Your task to perform on an android device: open device folders in google photos Image 0: 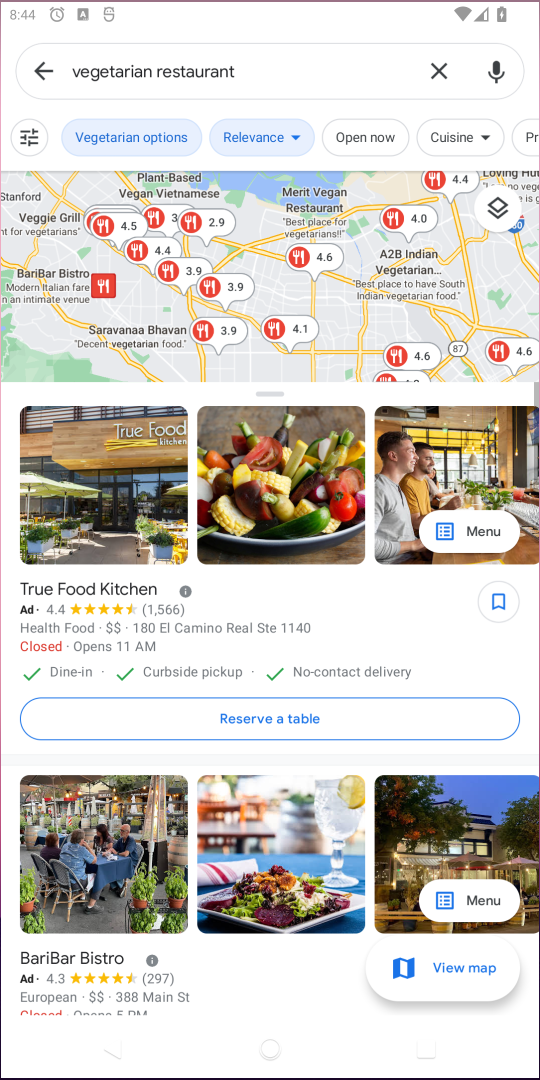
Step 0: press home button
Your task to perform on an android device: open device folders in google photos Image 1: 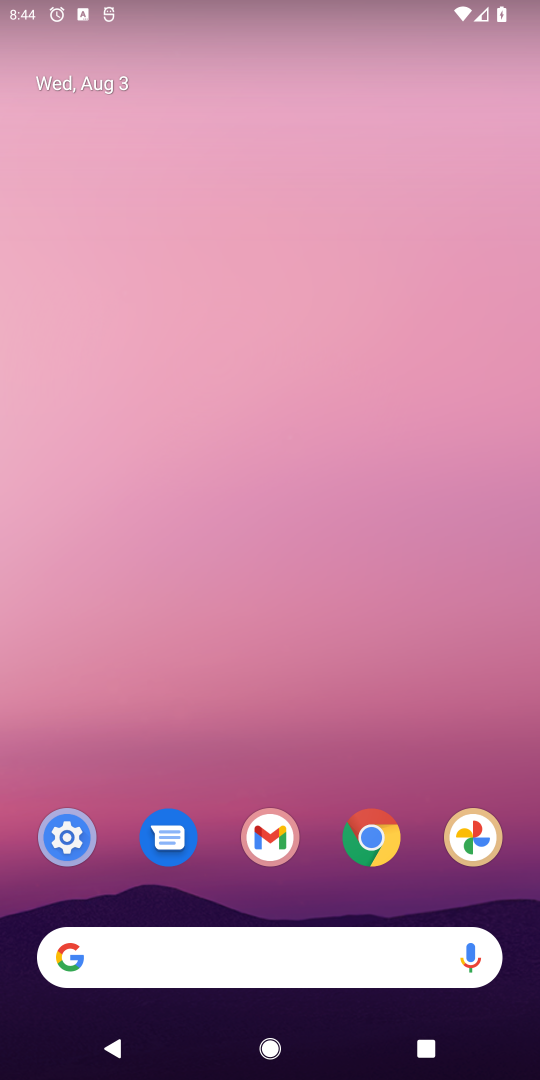
Step 1: click (467, 848)
Your task to perform on an android device: open device folders in google photos Image 2: 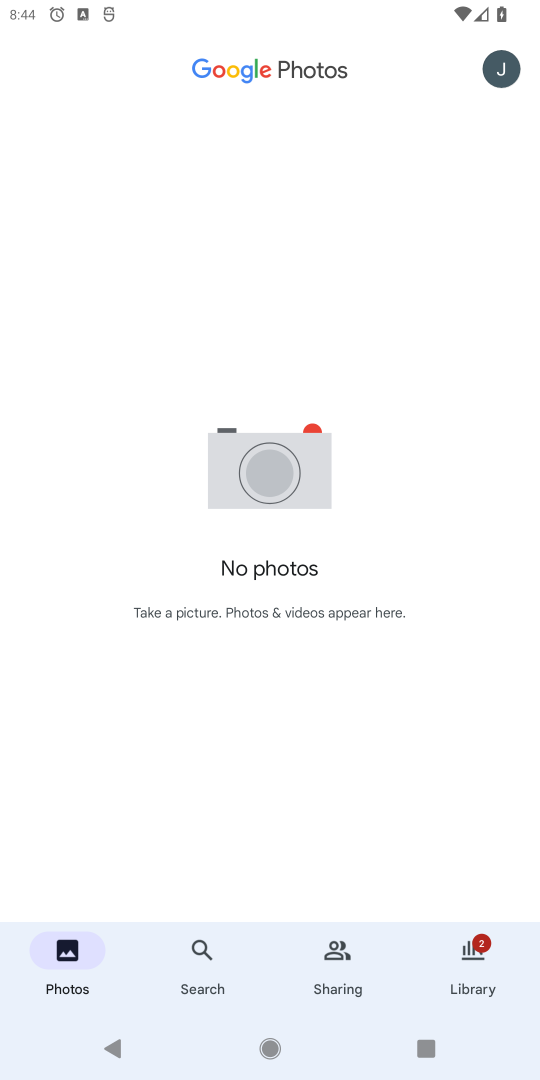
Step 2: click (477, 945)
Your task to perform on an android device: open device folders in google photos Image 3: 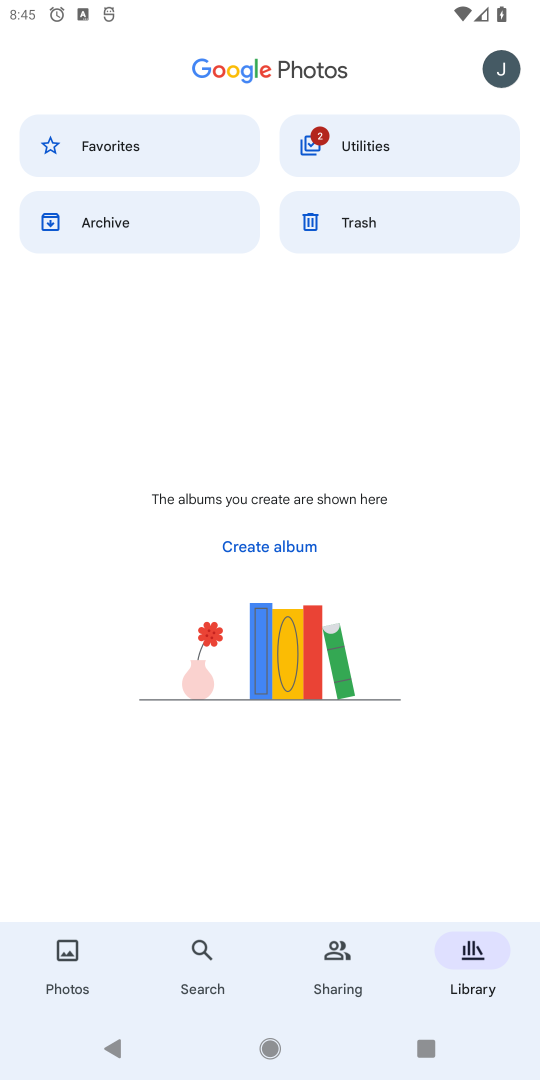
Step 3: task complete